Your task to perform on an android device: Open Google Chrome Image 0: 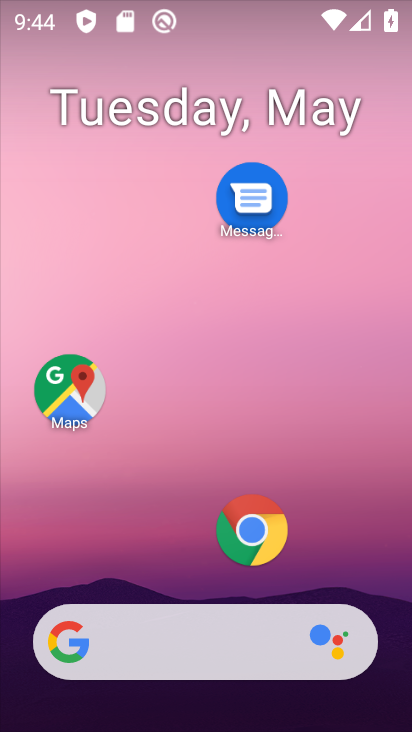
Step 0: click (252, 527)
Your task to perform on an android device: Open Google Chrome Image 1: 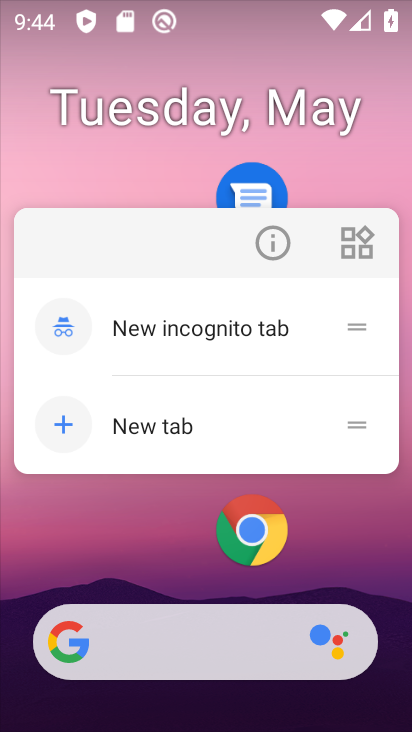
Step 1: click (254, 549)
Your task to perform on an android device: Open Google Chrome Image 2: 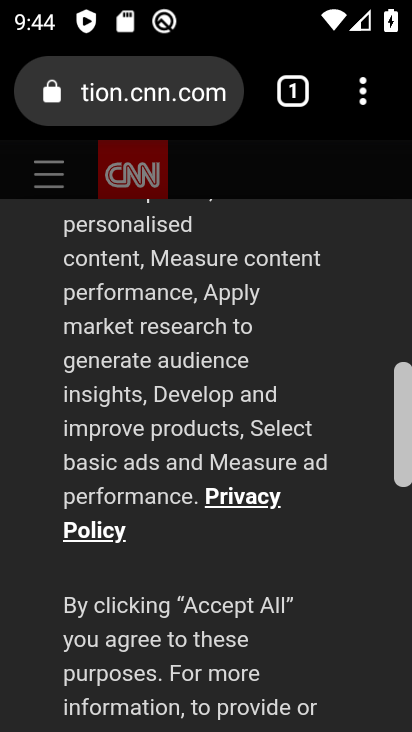
Step 2: task complete